Your task to perform on an android device: manage bookmarks in the chrome app Image 0: 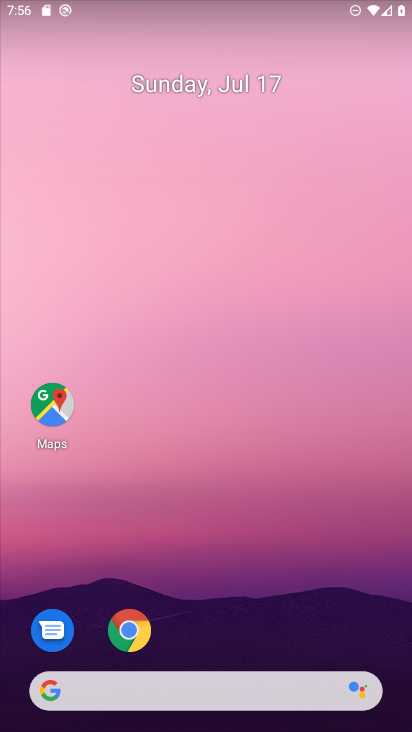
Step 0: drag from (305, 632) to (307, 204)
Your task to perform on an android device: manage bookmarks in the chrome app Image 1: 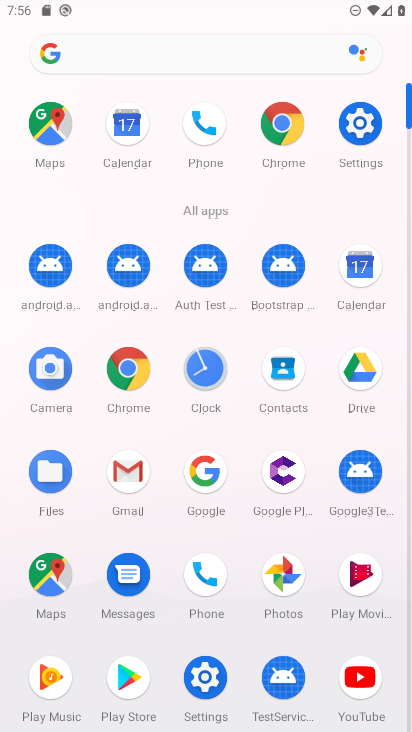
Step 1: click (290, 132)
Your task to perform on an android device: manage bookmarks in the chrome app Image 2: 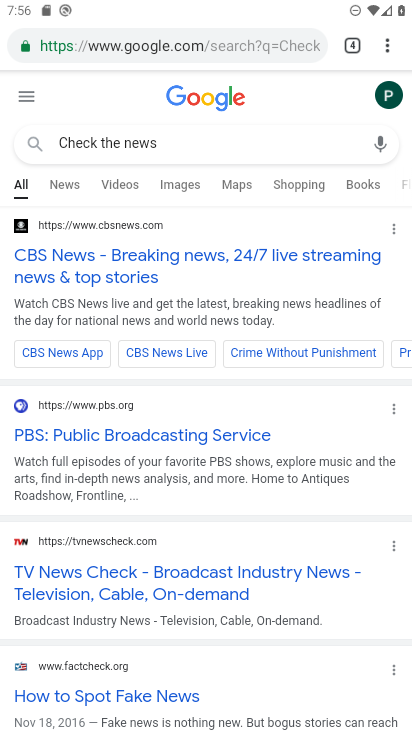
Step 2: click (398, 48)
Your task to perform on an android device: manage bookmarks in the chrome app Image 3: 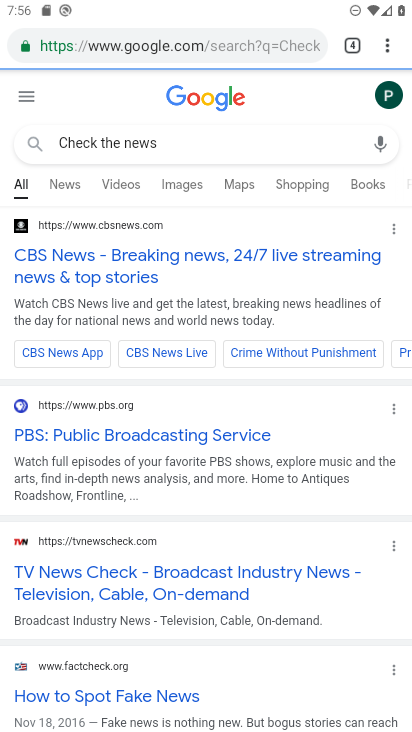
Step 3: click (384, 37)
Your task to perform on an android device: manage bookmarks in the chrome app Image 4: 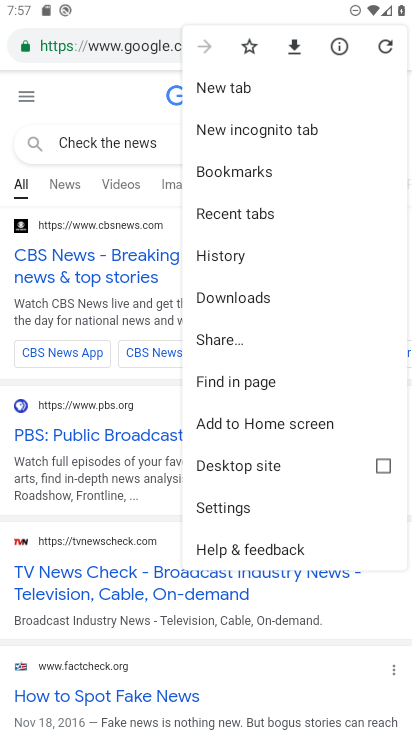
Step 4: click (237, 170)
Your task to perform on an android device: manage bookmarks in the chrome app Image 5: 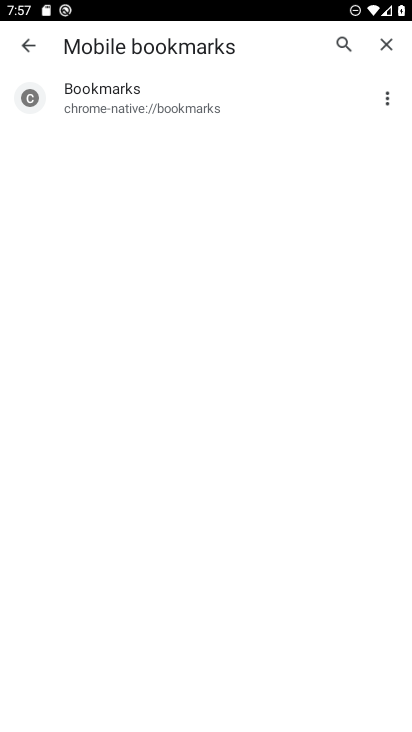
Step 5: click (152, 95)
Your task to perform on an android device: manage bookmarks in the chrome app Image 6: 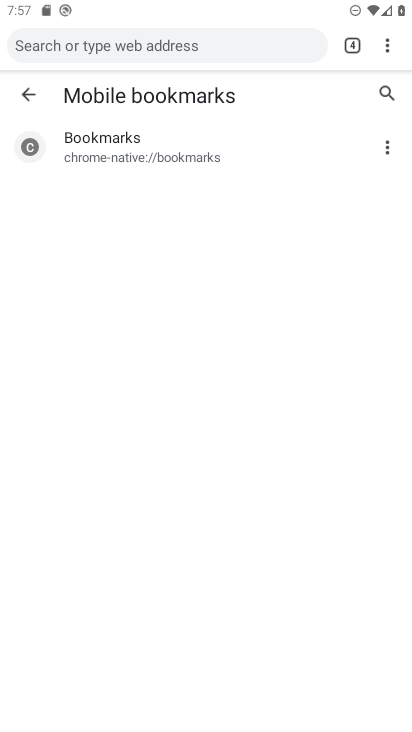
Step 6: task complete